Your task to perform on an android device: Open the calendar app, open the side menu, and click the "Day" option Image 0: 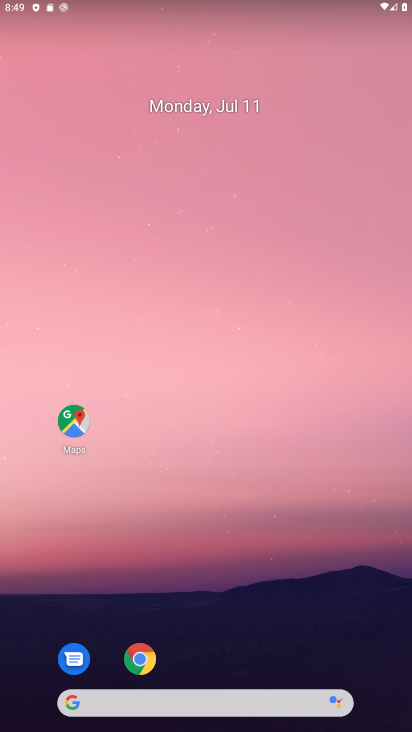
Step 0: drag from (182, 725) to (187, 180)
Your task to perform on an android device: Open the calendar app, open the side menu, and click the "Day" option Image 1: 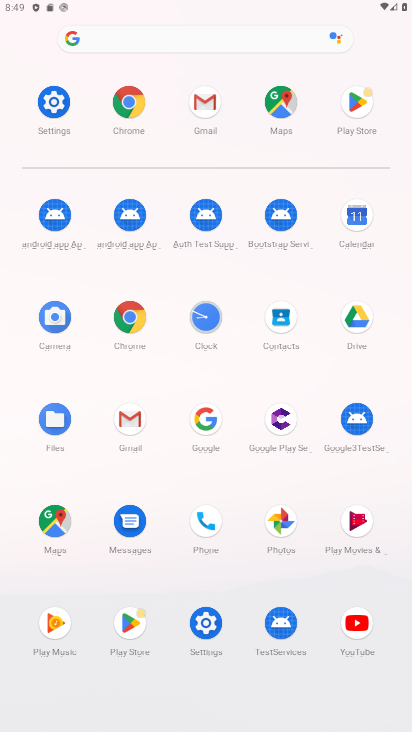
Step 1: click (355, 226)
Your task to perform on an android device: Open the calendar app, open the side menu, and click the "Day" option Image 2: 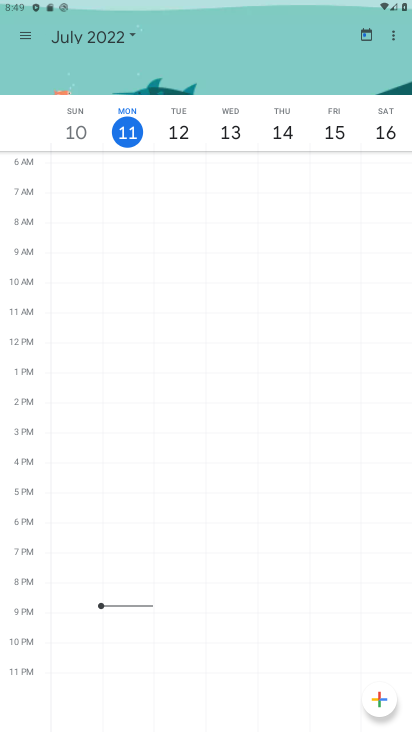
Step 2: click (23, 38)
Your task to perform on an android device: Open the calendar app, open the side menu, and click the "Day" option Image 3: 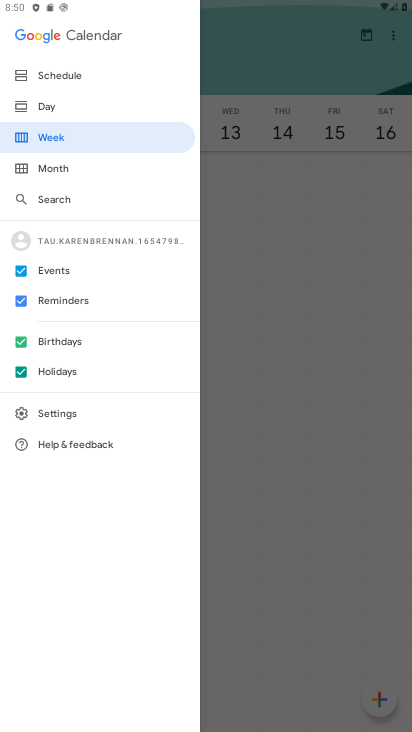
Step 3: click (50, 105)
Your task to perform on an android device: Open the calendar app, open the side menu, and click the "Day" option Image 4: 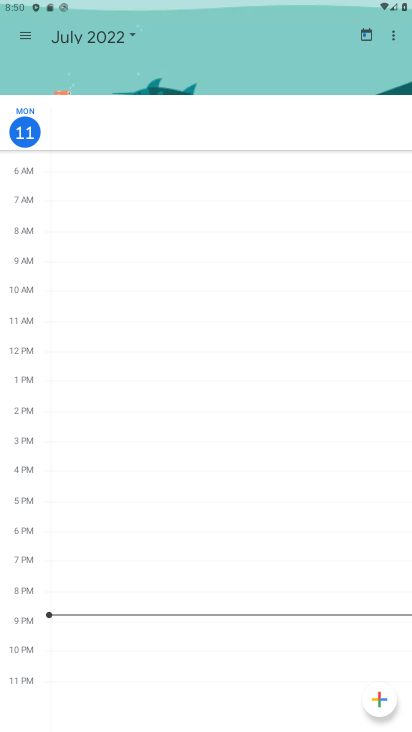
Step 4: task complete